Your task to perform on an android device: change notification settings in the gmail app Image 0: 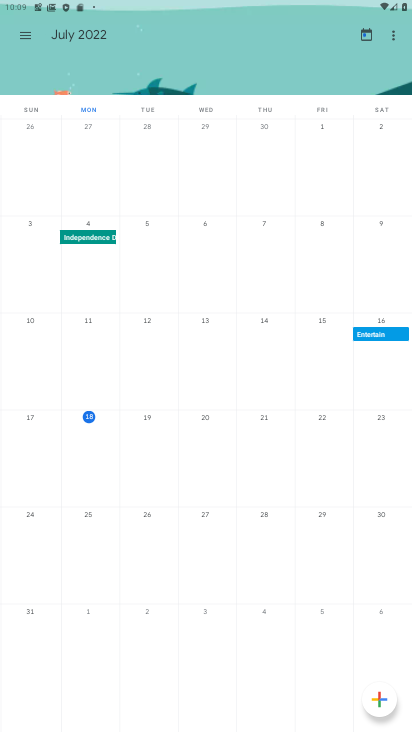
Step 0: press home button
Your task to perform on an android device: change notification settings in the gmail app Image 1: 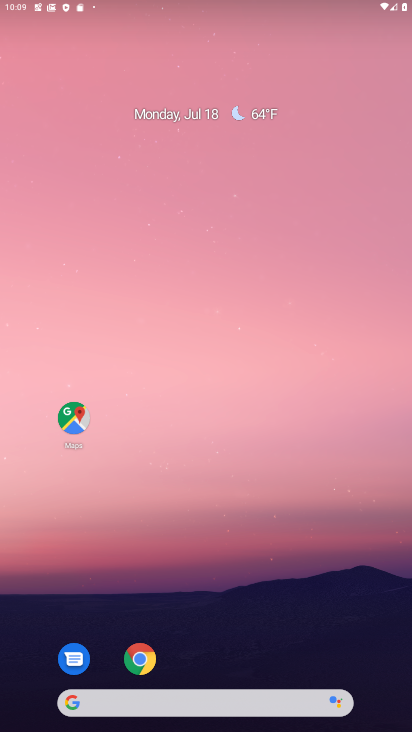
Step 1: drag from (198, 660) to (214, 116)
Your task to perform on an android device: change notification settings in the gmail app Image 2: 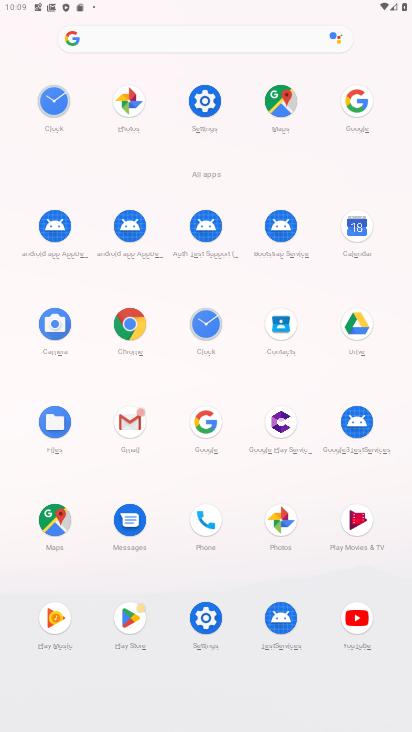
Step 2: click (202, 621)
Your task to perform on an android device: change notification settings in the gmail app Image 3: 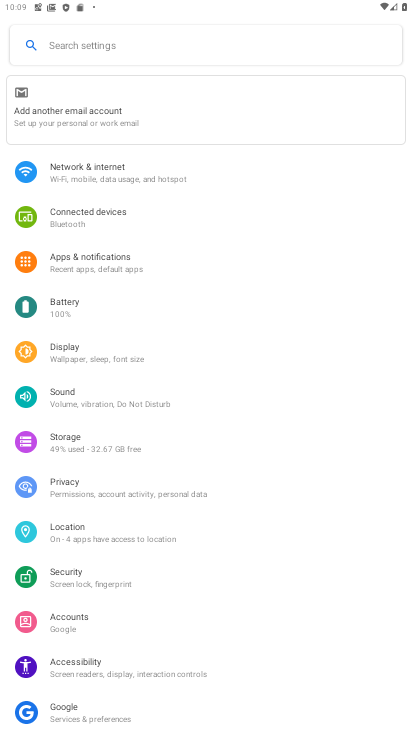
Step 3: click (111, 259)
Your task to perform on an android device: change notification settings in the gmail app Image 4: 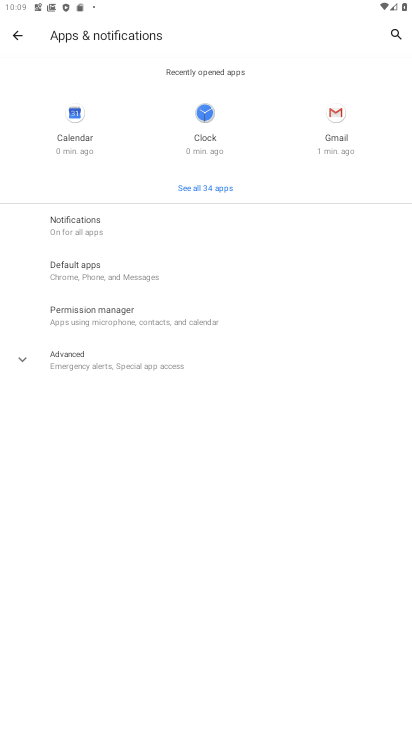
Step 4: click (83, 224)
Your task to perform on an android device: change notification settings in the gmail app Image 5: 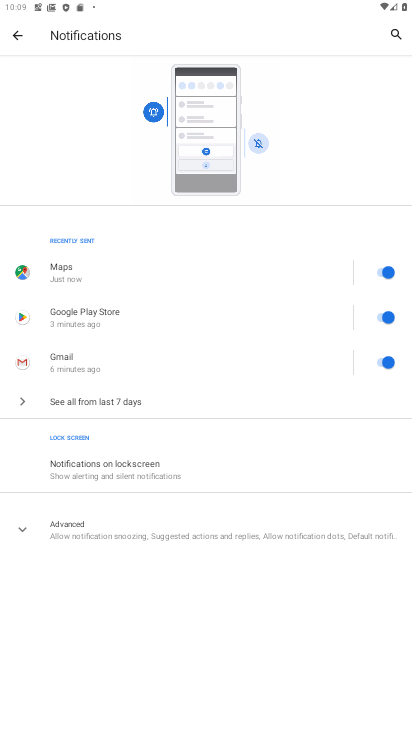
Step 5: click (80, 535)
Your task to perform on an android device: change notification settings in the gmail app Image 6: 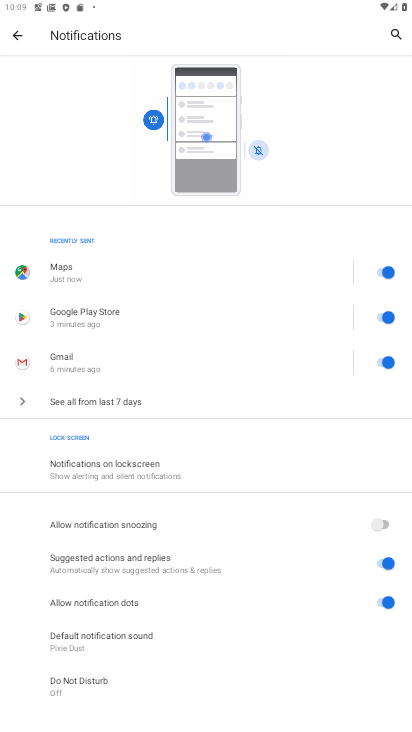
Step 6: click (384, 562)
Your task to perform on an android device: change notification settings in the gmail app Image 7: 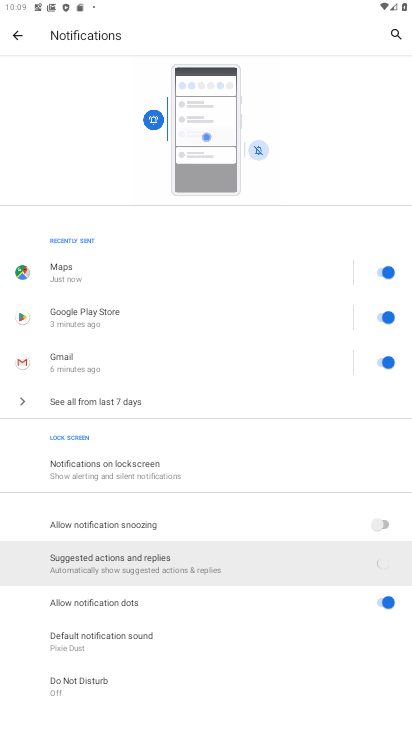
Step 7: click (383, 526)
Your task to perform on an android device: change notification settings in the gmail app Image 8: 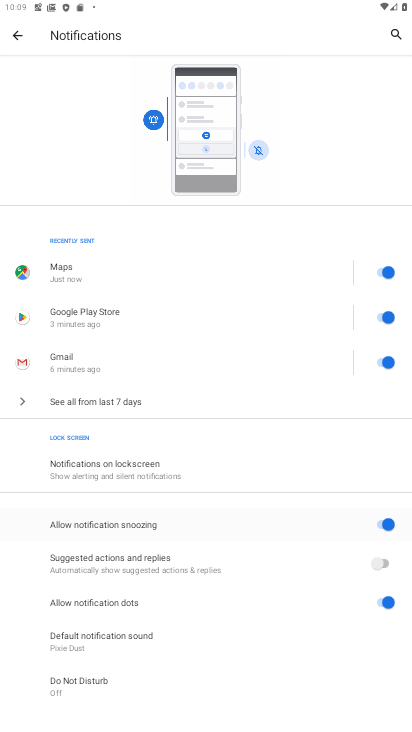
Step 8: click (392, 599)
Your task to perform on an android device: change notification settings in the gmail app Image 9: 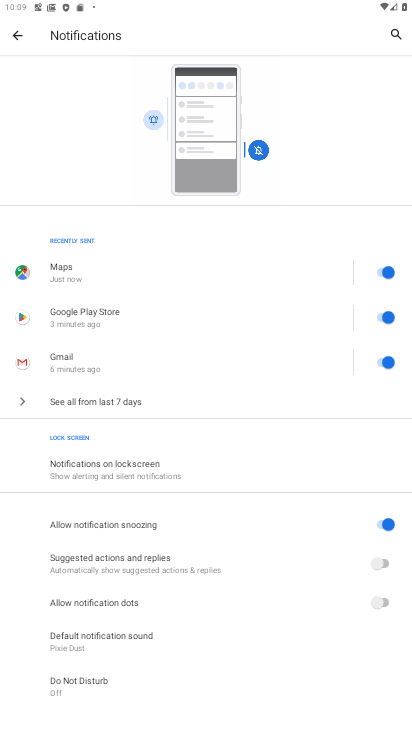
Step 9: task complete